Your task to perform on an android device: Set the phone to "Do not disturb". Image 0: 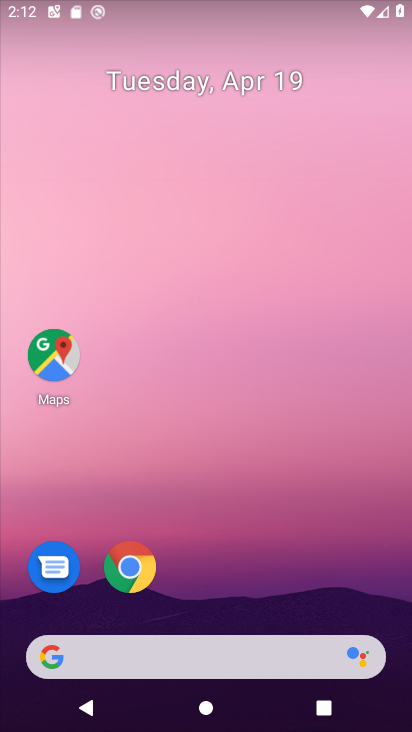
Step 0: drag from (227, 566) to (314, 29)
Your task to perform on an android device: Set the phone to "Do not disturb". Image 1: 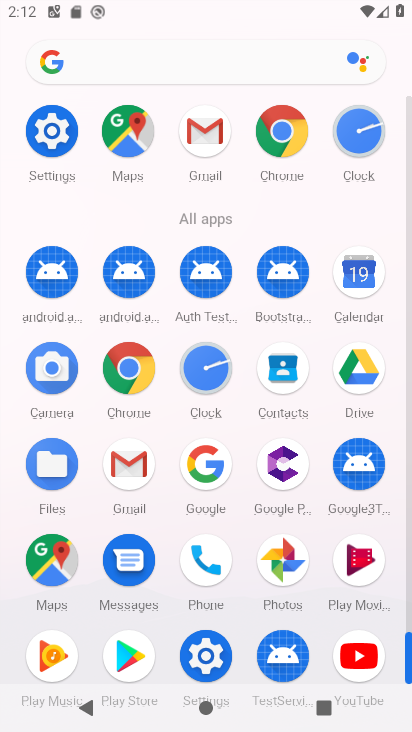
Step 1: click (52, 134)
Your task to perform on an android device: Set the phone to "Do not disturb". Image 2: 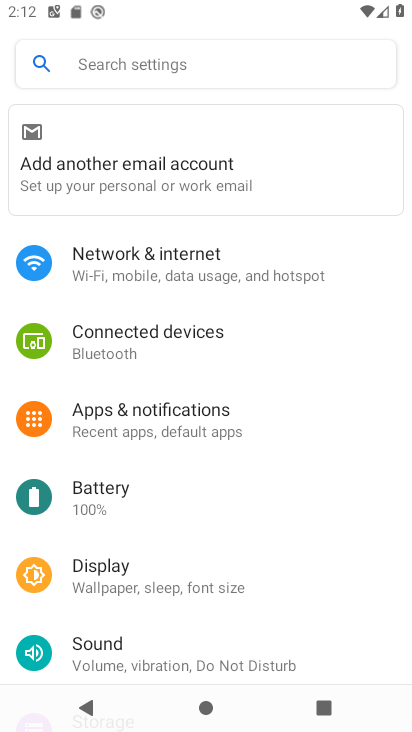
Step 2: click (106, 646)
Your task to perform on an android device: Set the phone to "Do not disturb". Image 3: 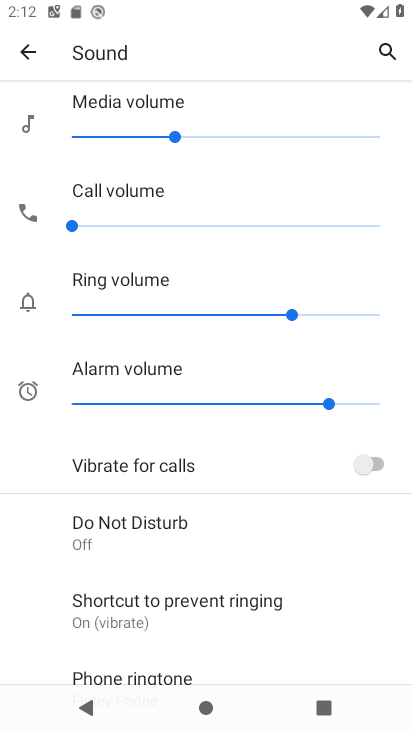
Step 3: click (116, 526)
Your task to perform on an android device: Set the phone to "Do not disturb". Image 4: 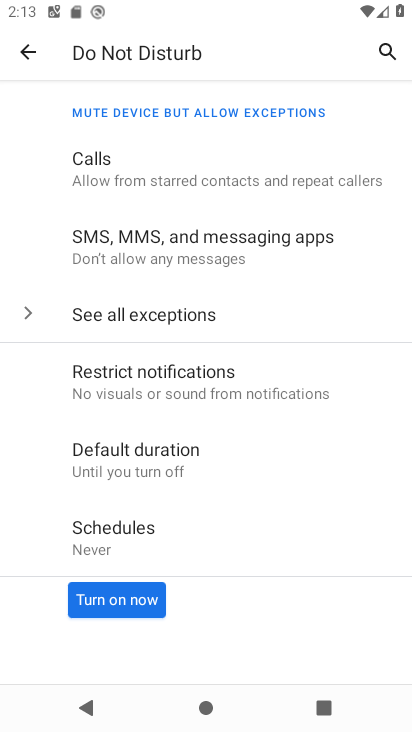
Step 4: click (116, 605)
Your task to perform on an android device: Set the phone to "Do not disturb". Image 5: 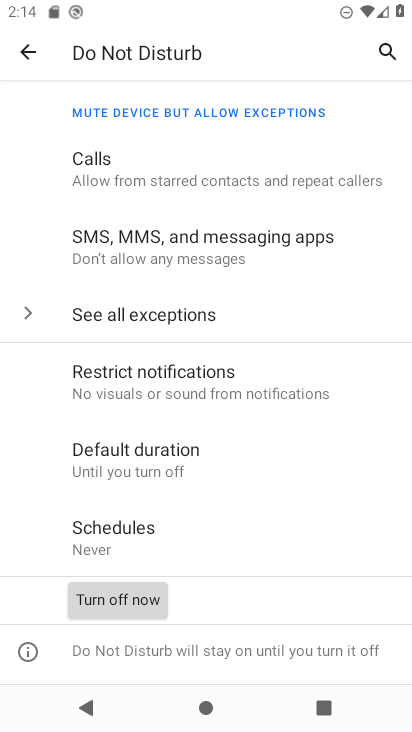
Step 5: task complete